Your task to perform on an android device: Search for the best rated mattress topper on Target. Image 0: 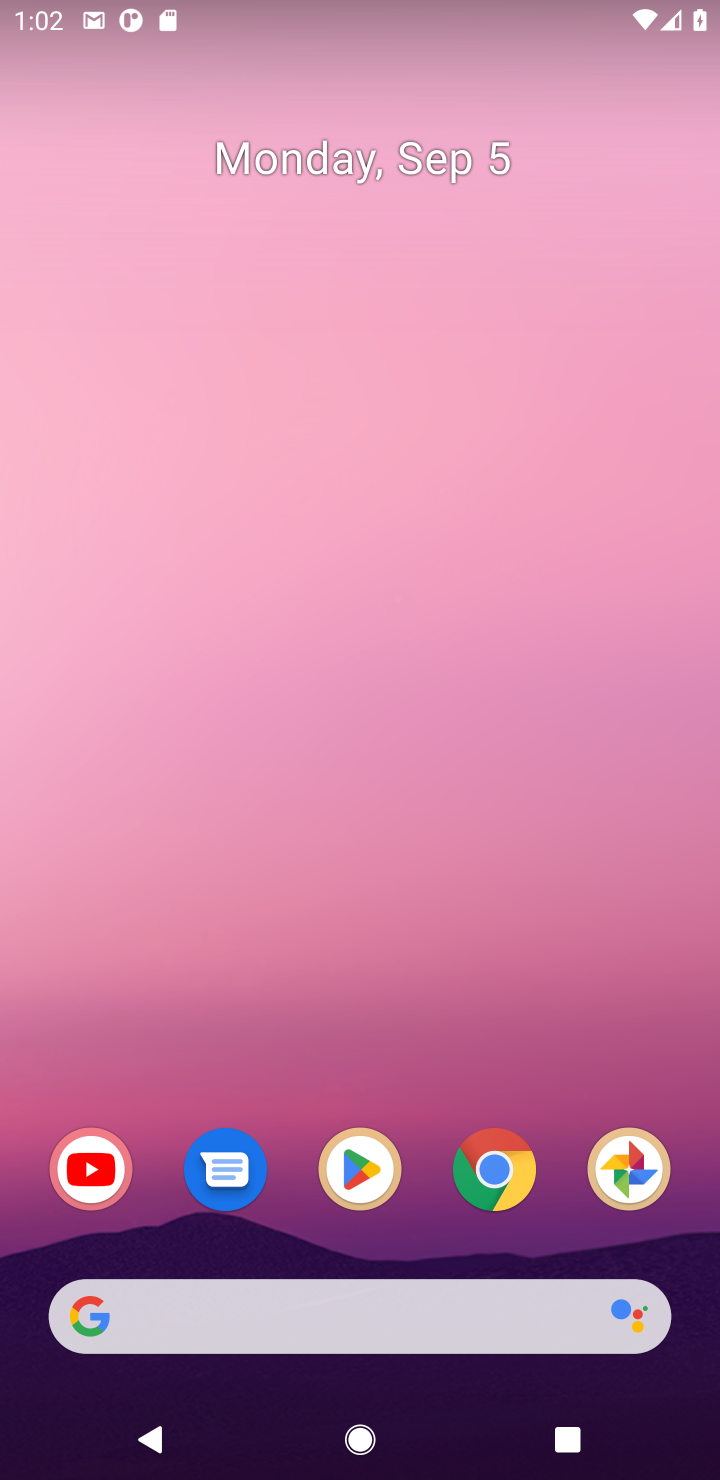
Step 0: click (84, 1176)
Your task to perform on an android device: Search for the best rated mattress topper on Target. Image 1: 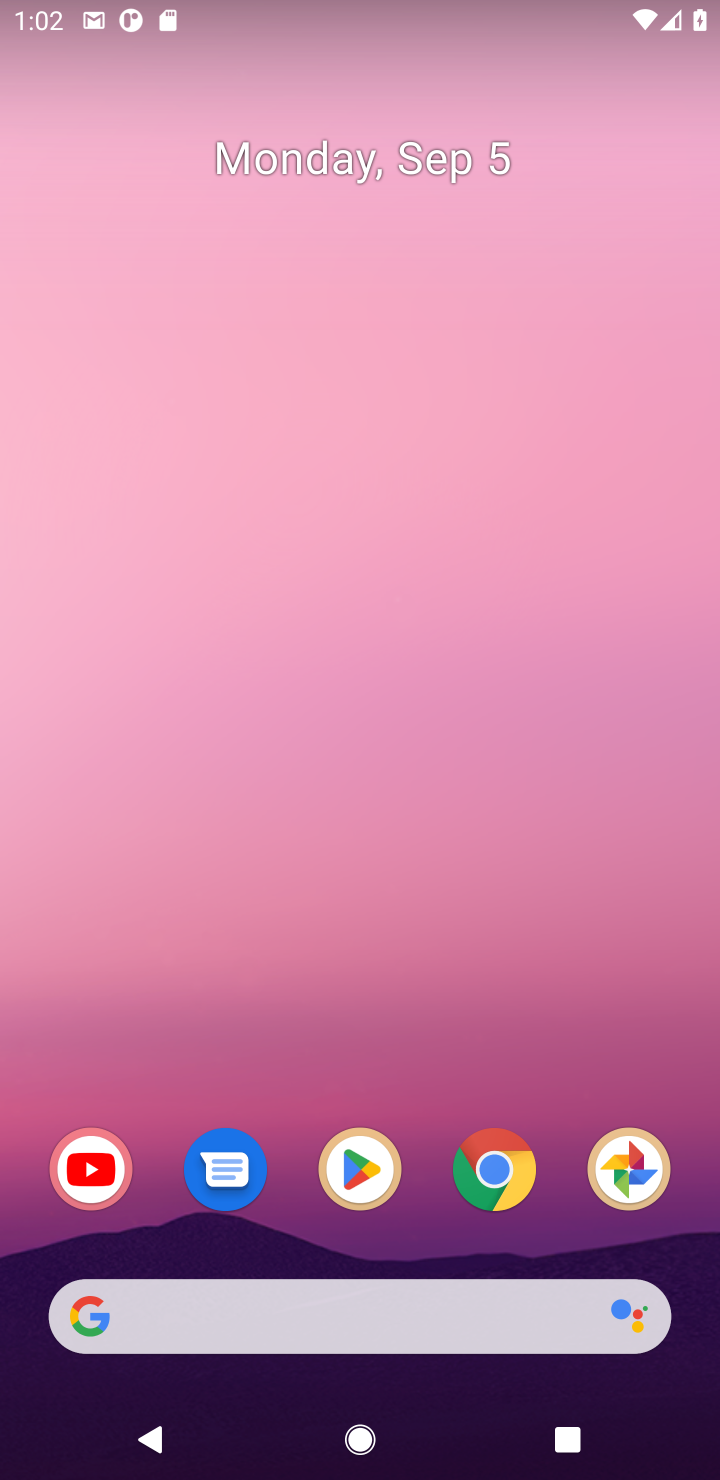
Step 1: task complete